Your task to perform on an android device: toggle translation in the chrome app Image 0: 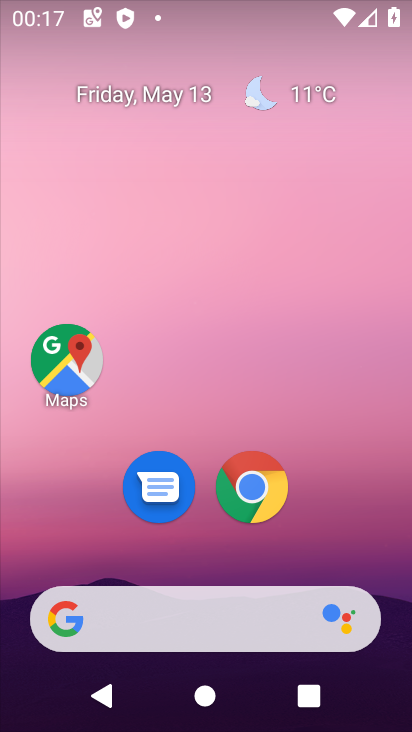
Step 0: click (242, 484)
Your task to perform on an android device: toggle translation in the chrome app Image 1: 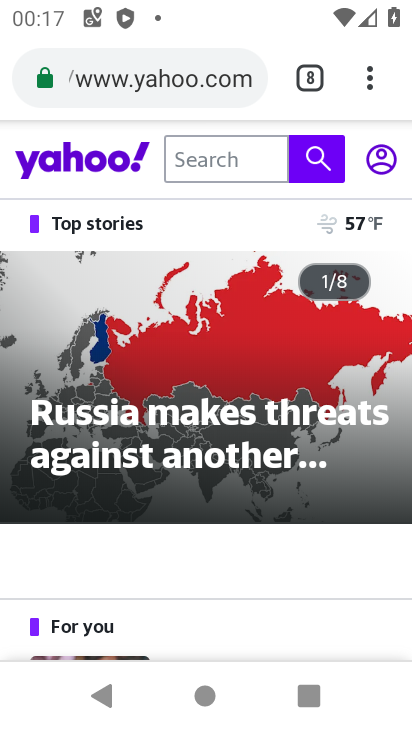
Step 1: click (349, 77)
Your task to perform on an android device: toggle translation in the chrome app Image 2: 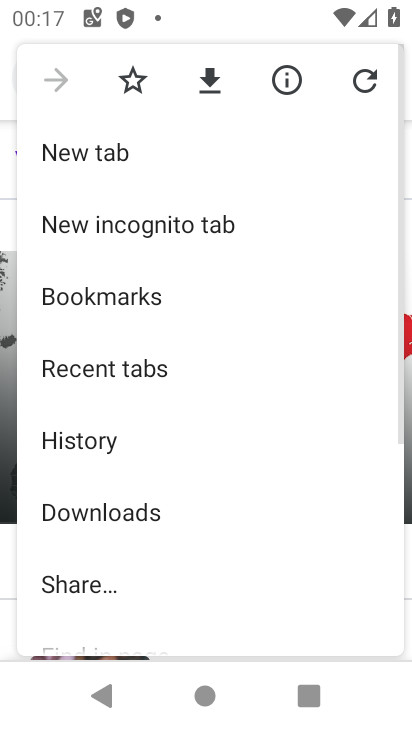
Step 2: drag from (126, 557) to (200, 237)
Your task to perform on an android device: toggle translation in the chrome app Image 3: 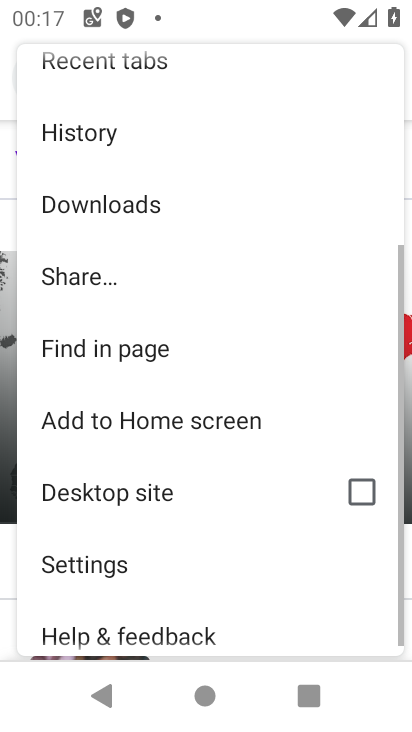
Step 3: click (179, 588)
Your task to perform on an android device: toggle translation in the chrome app Image 4: 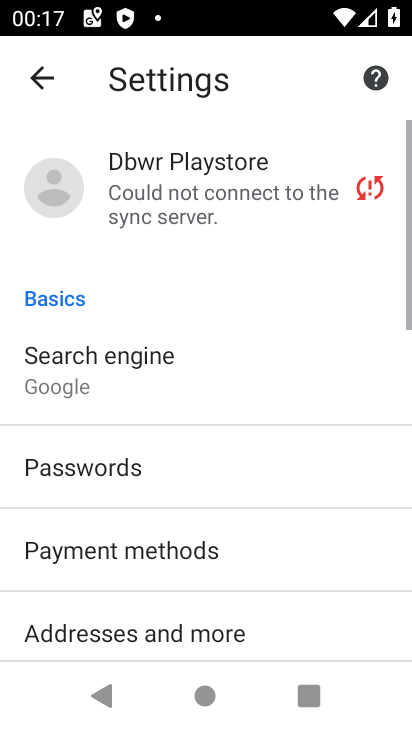
Step 4: drag from (179, 588) to (214, 229)
Your task to perform on an android device: toggle translation in the chrome app Image 5: 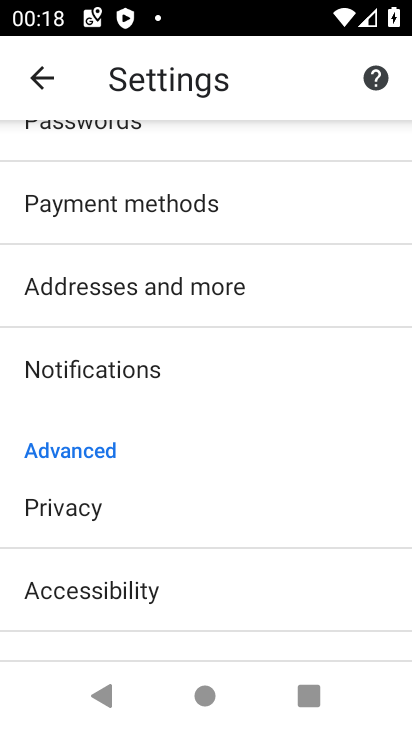
Step 5: drag from (213, 573) to (311, 111)
Your task to perform on an android device: toggle translation in the chrome app Image 6: 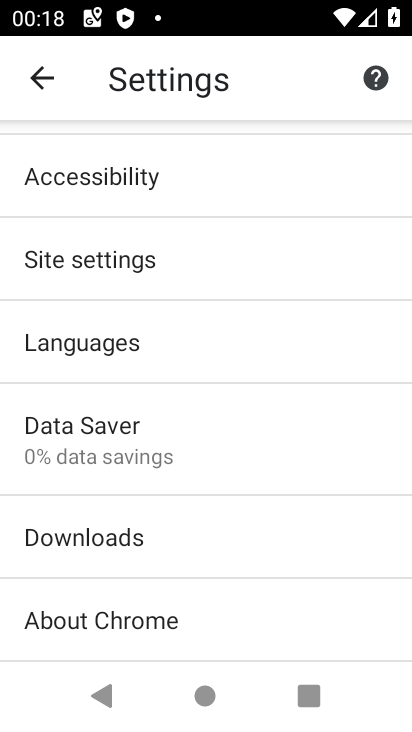
Step 6: click (150, 369)
Your task to perform on an android device: toggle translation in the chrome app Image 7: 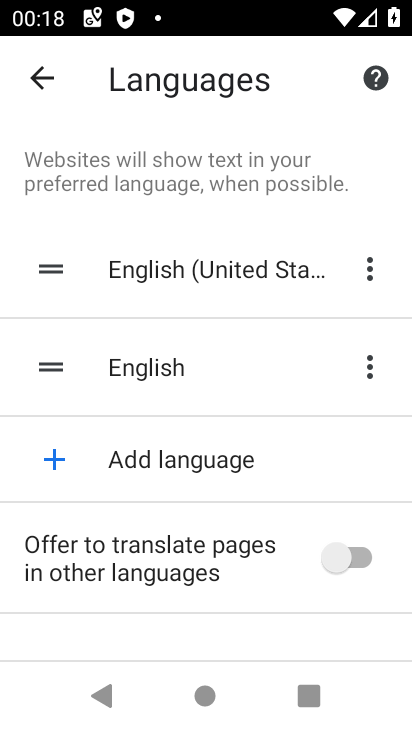
Step 7: click (358, 561)
Your task to perform on an android device: toggle translation in the chrome app Image 8: 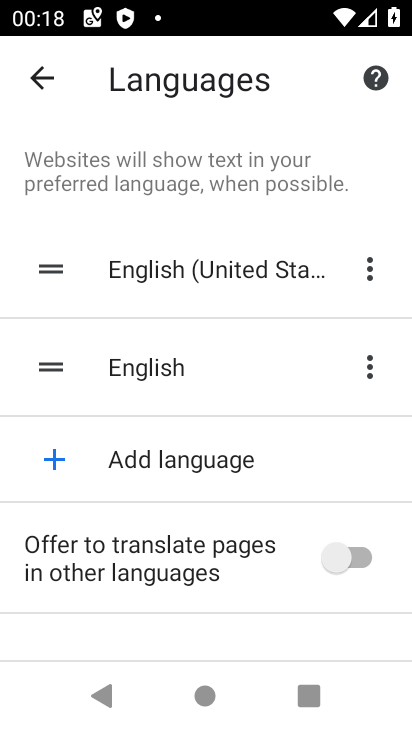
Step 8: click (358, 561)
Your task to perform on an android device: toggle translation in the chrome app Image 9: 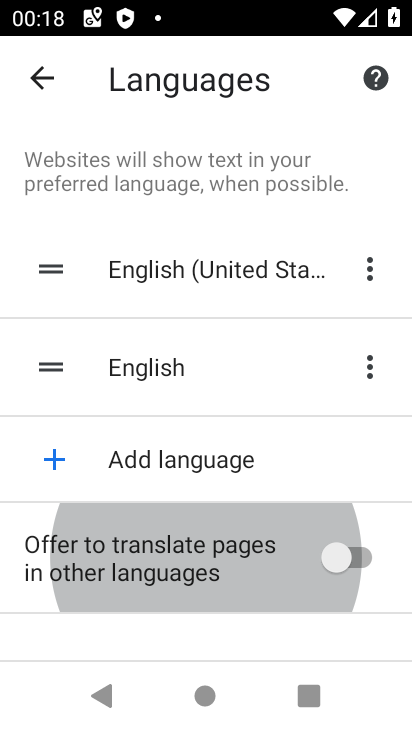
Step 9: click (358, 561)
Your task to perform on an android device: toggle translation in the chrome app Image 10: 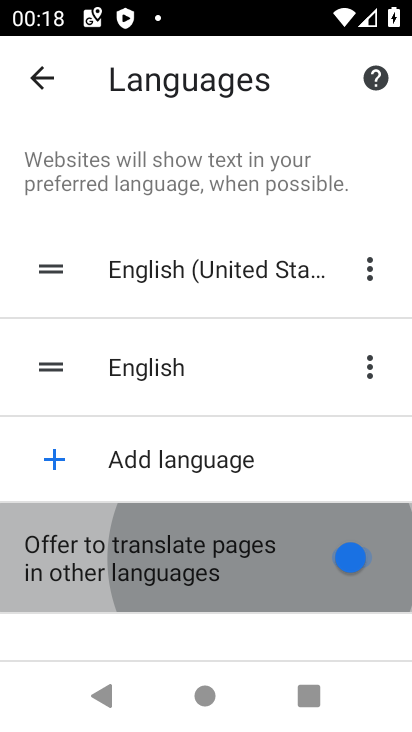
Step 10: click (358, 561)
Your task to perform on an android device: toggle translation in the chrome app Image 11: 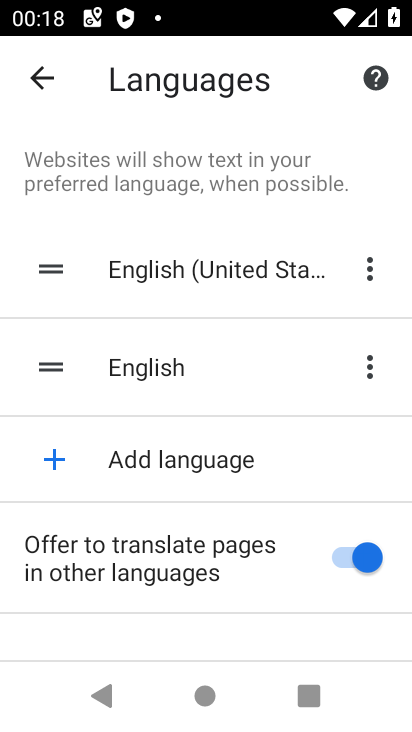
Step 11: task complete